Your task to perform on an android device: change the clock display to digital Image 0: 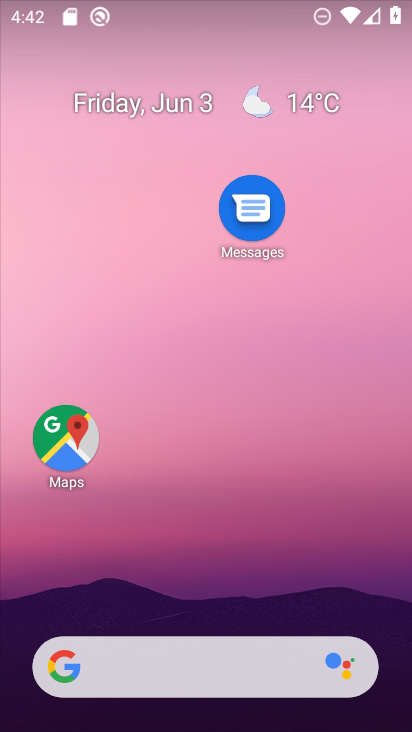
Step 0: drag from (234, 557) to (250, 301)
Your task to perform on an android device: change the clock display to digital Image 1: 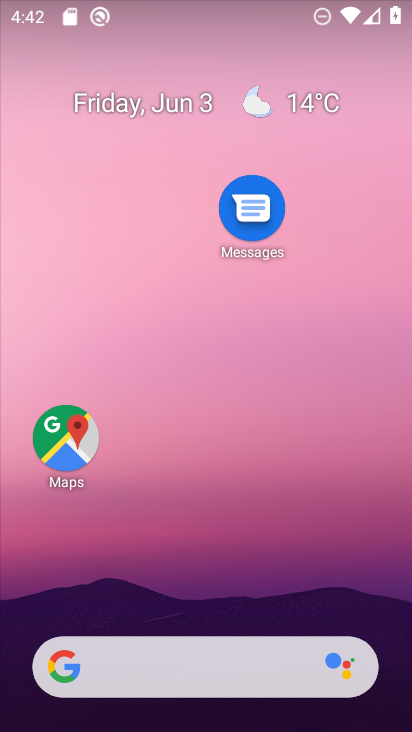
Step 1: drag from (199, 593) to (259, 167)
Your task to perform on an android device: change the clock display to digital Image 2: 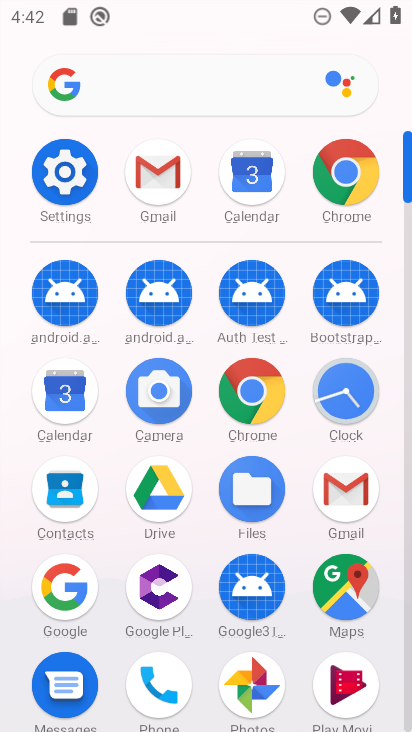
Step 2: click (334, 389)
Your task to perform on an android device: change the clock display to digital Image 3: 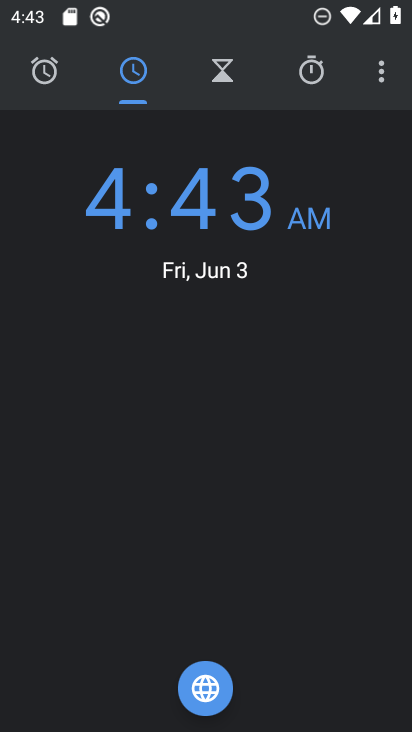
Step 3: click (389, 78)
Your task to perform on an android device: change the clock display to digital Image 4: 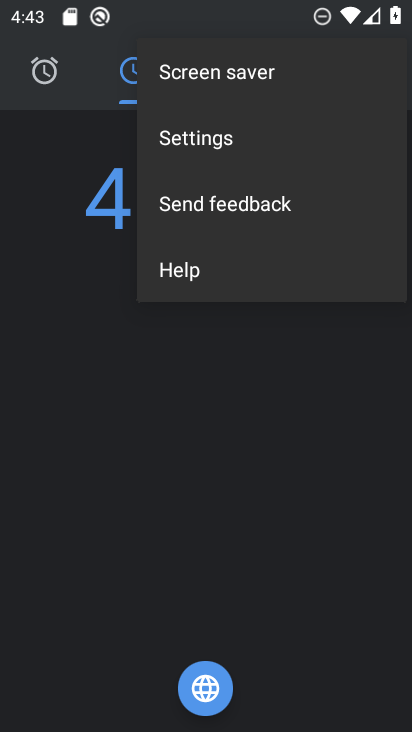
Step 4: click (382, 79)
Your task to perform on an android device: change the clock display to digital Image 5: 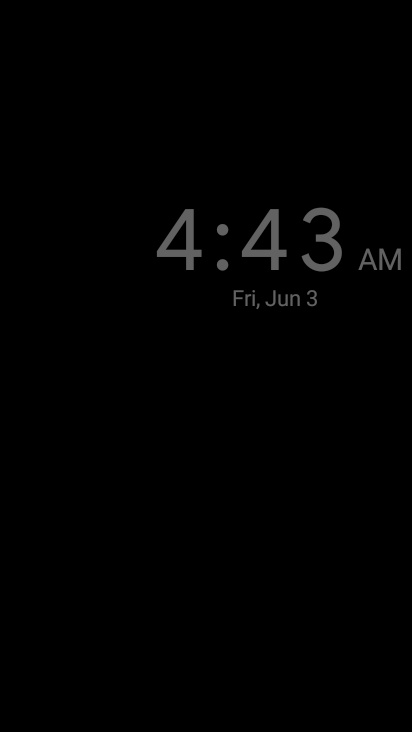
Step 5: click (259, 135)
Your task to perform on an android device: change the clock display to digital Image 6: 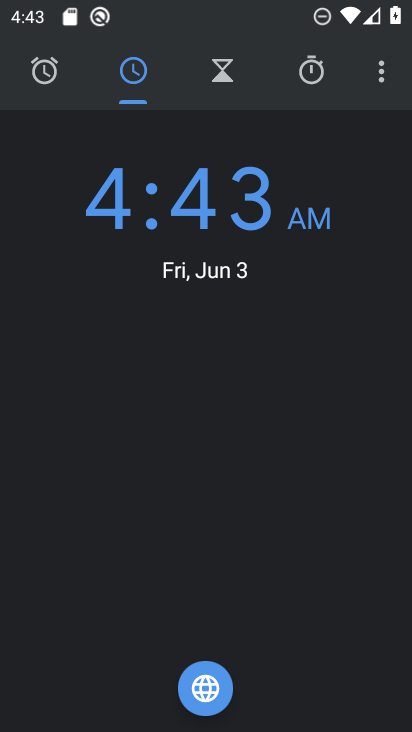
Step 6: click (377, 86)
Your task to perform on an android device: change the clock display to digital Image 7: 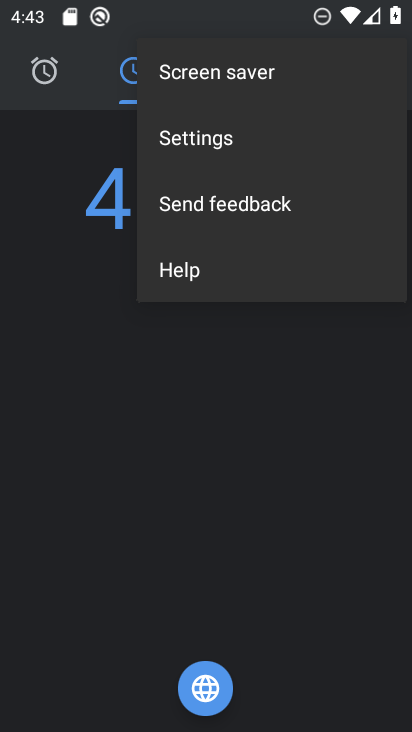
Step 7: click (209, 140)
Your task to perform on an android device: change the clock display to digital Image 8: 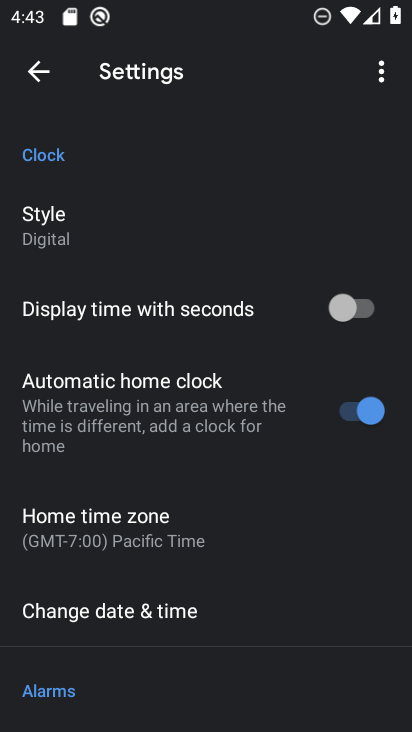
Step 8: click (194, 140)
Your task to perform on an android device: change the clock display to digital Image 9: 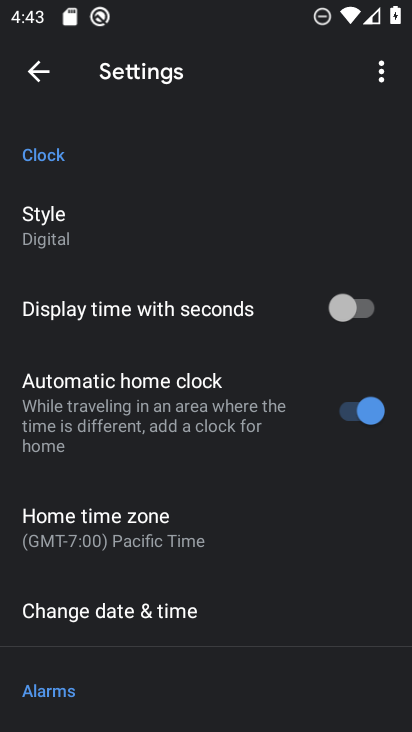
Step 9: click (78, 224)
Your task to perform on an android device: change the clock display to digital Image 10: 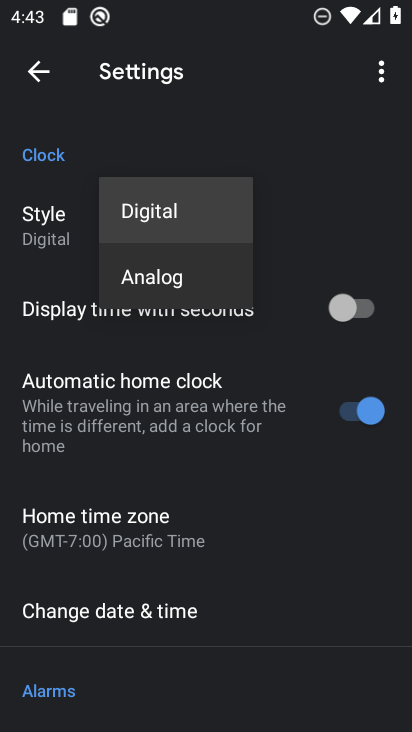
Step 10: click (156, 272)
Your task to perform on an android device: change the clock display to digital Image 11: 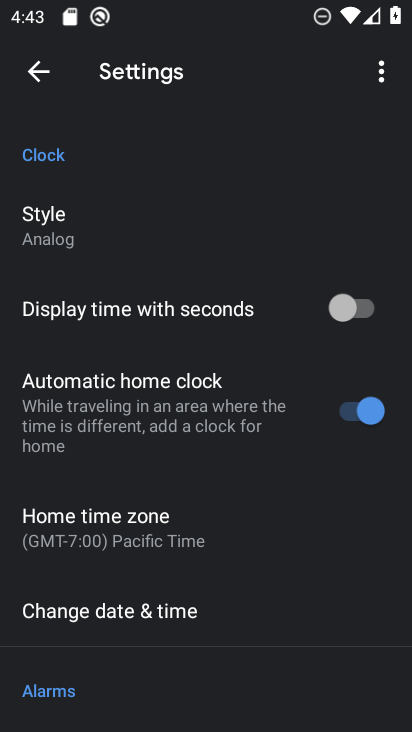
Step 11: task complete